Your task to perform on an android device: Is it going to rain today? Image 0: 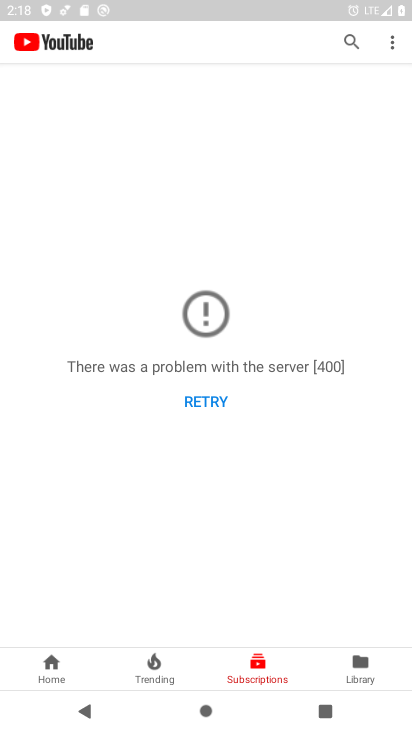
Step 0: press home button
Your task to perform on an android device: Is it going to rain today? Image 1: 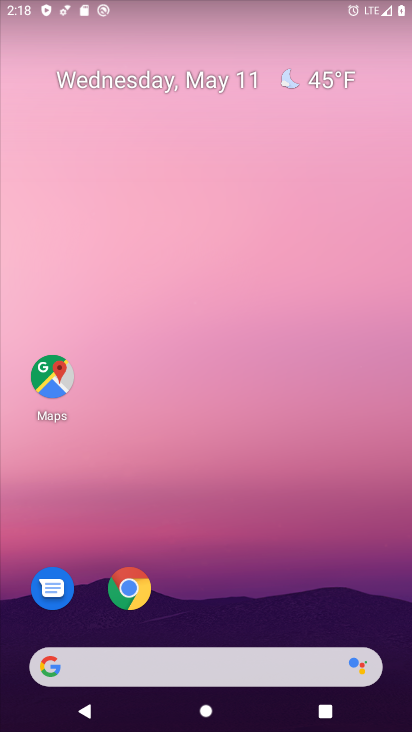
Step 1: drag from (191, 621) to (214, 297)
Your task to perform on an android device: Is it going to rain today? Image 2: 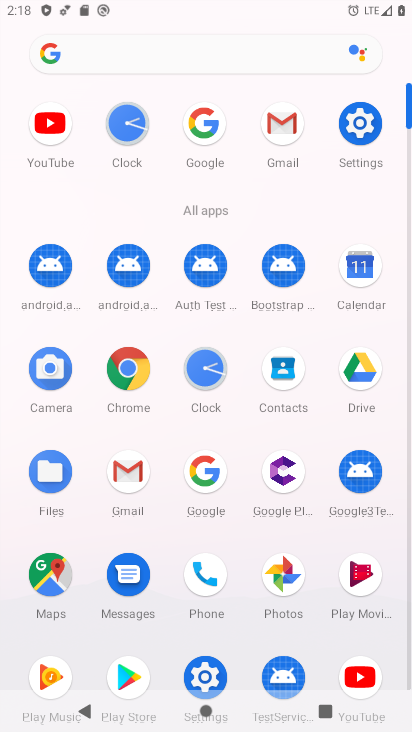
Step 2: click (184, 464)
Your task to perform on an android device: Is it going to rain today? Image 3: 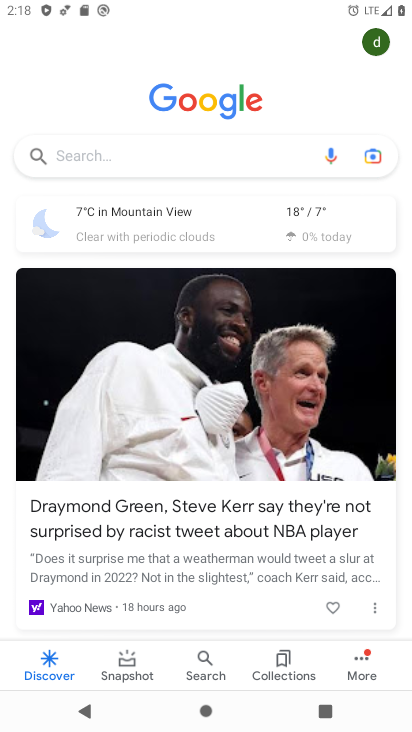
Step 3: click (211, 231)
Your task to perform on an android device: Is it going to rain today? Image 4: 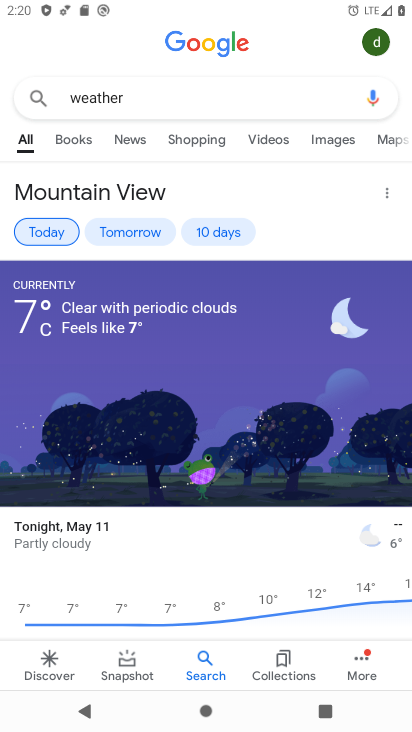
Step 4: task complete